Your task to perform on an android device: Open calendar and show me the second week of next month Image 0: 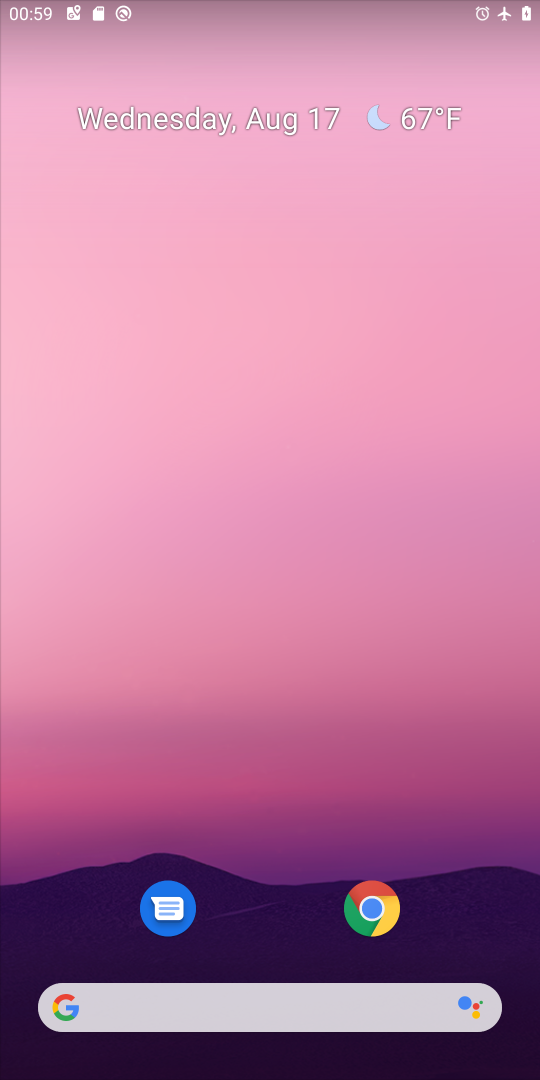
Step 0: drag from (244, 865) to (220, 295)
Your task to perform on an android device: Open calendar and show me the second week of next month Image 1: 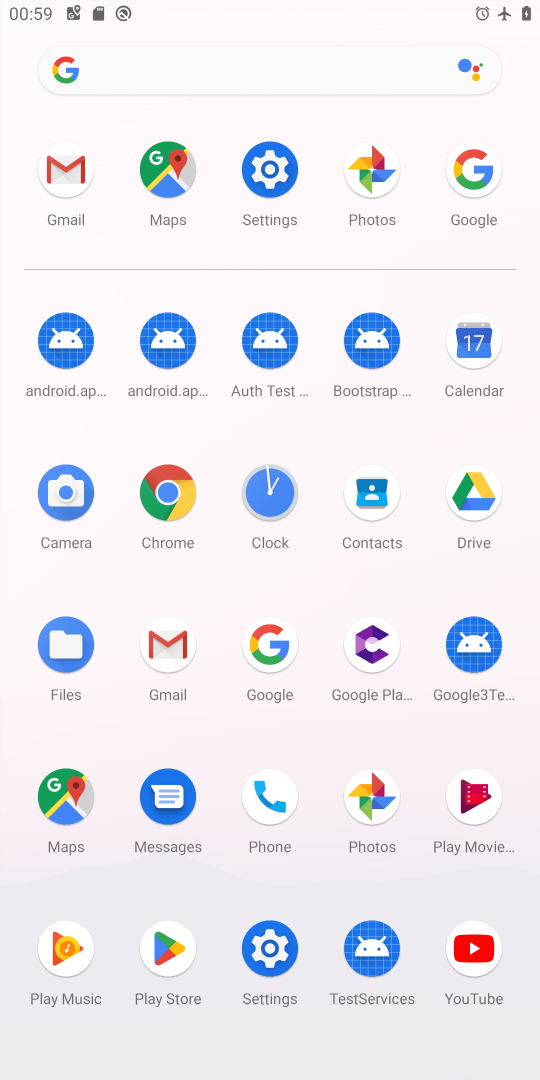
Step 1: click (483, 348)
Your task to perform on an android device: Open calendar and show me the second week of next month Image 2: 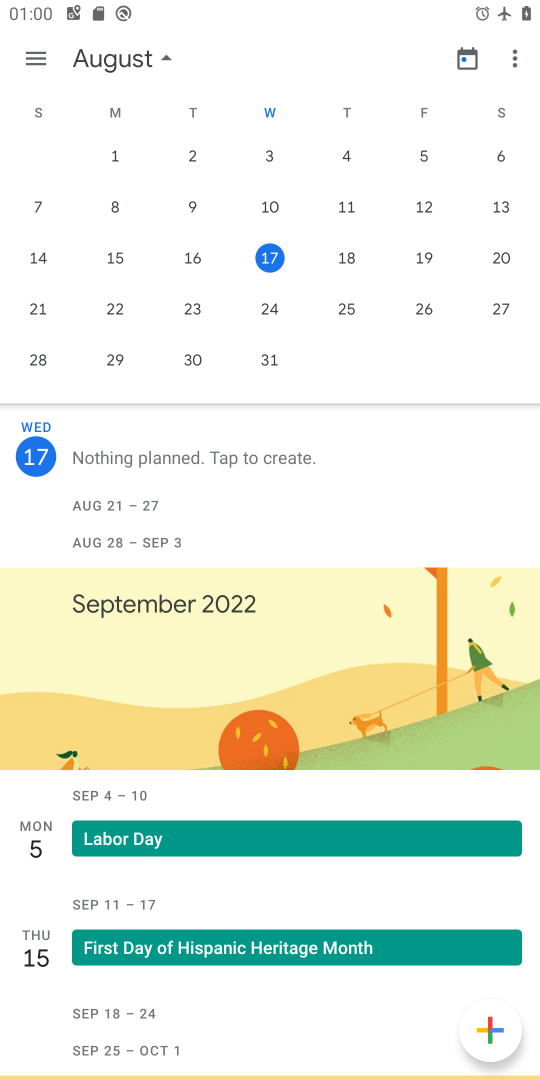
Step 2: drag from (434, 229) to (25, 234)
Your task to perform on an android device: Open calendar and show me the second week of next month Image 3: 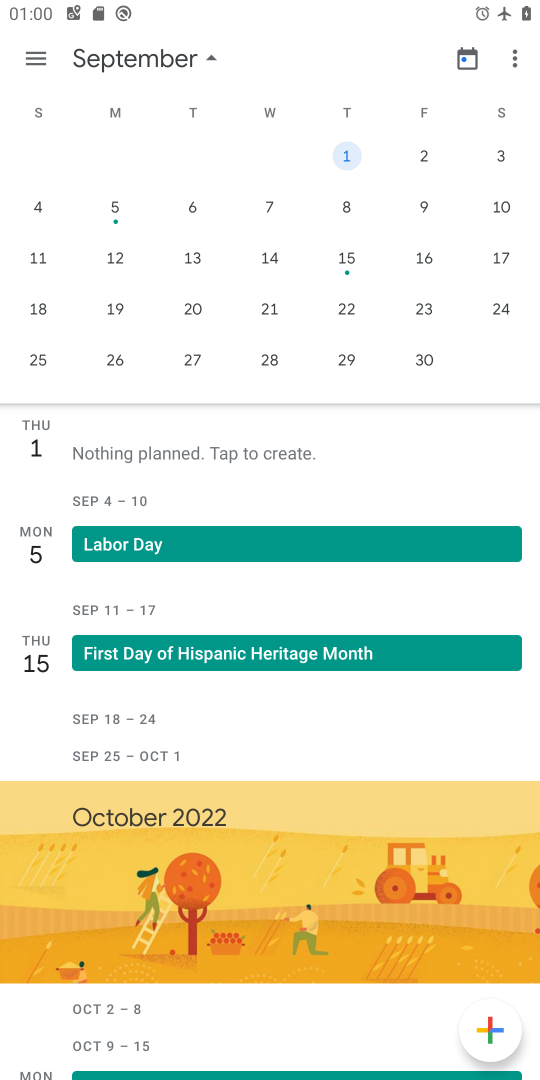
Step 3: click (30, 216)
Your task to perform on an android device: Open calendar and show me the second week of next month Image 4: 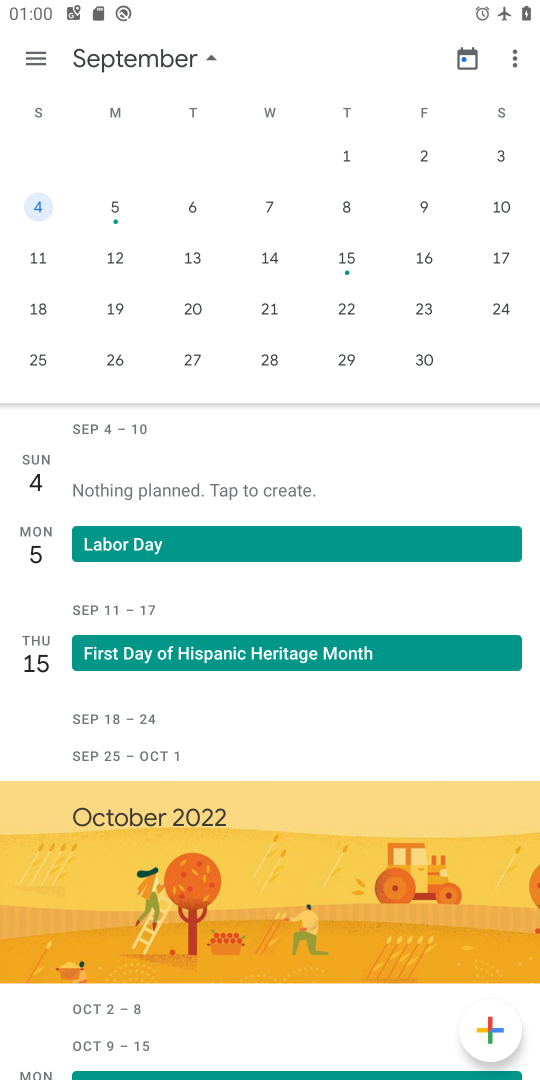
Step 4: task complete